Your task to perform on an android device: Open the Play Movies app and select the watchlist tab. Image 0: 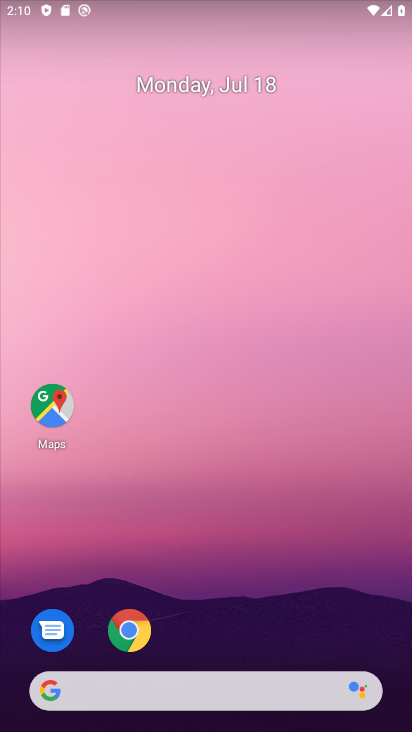
Step 0: press home button
Your task to perform on an android device: Open the Play Movies app and select the watchlist tab. Image 1: 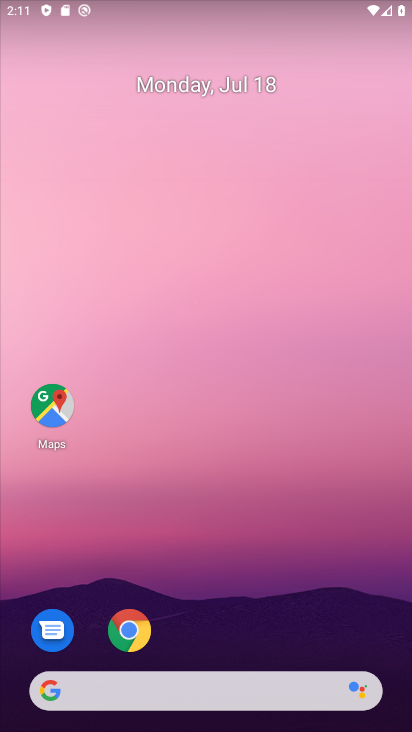
Step 1: drag from (242, 550) to (245, 83)
Your task to perform on an android device: Open the Play Movies app and select the watchlist tab. Image 2: 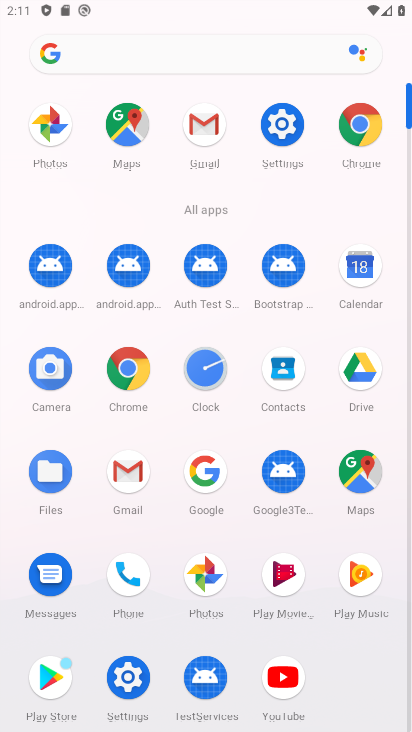
Step 2: click (284, 579)
Your task to perform on an android device: Open the Play Movies app and select the watchlist tab. Image 3: 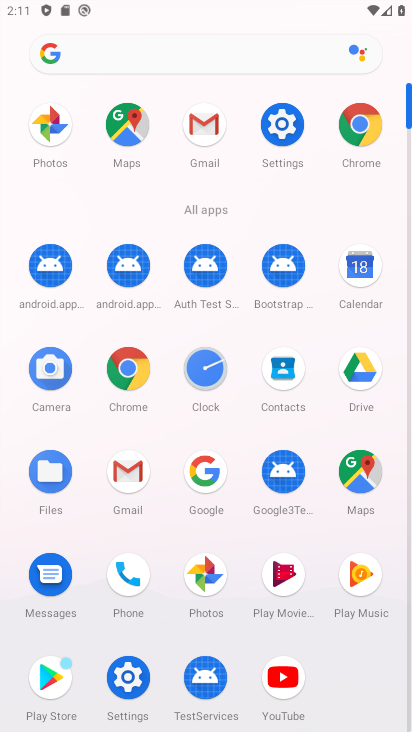
Step 3: click (283, 569)
Your task to perform on an android device: Open the Play Movies app and select the watchlist tab. Image 4: 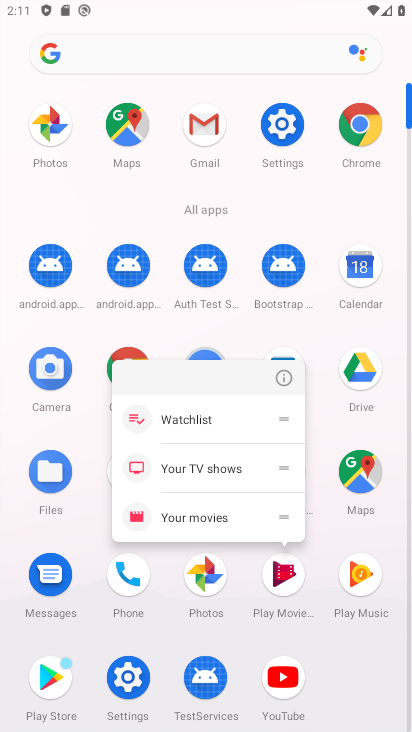
Step 4: click (283, 569)
Your task to perform on an android device: Open the Play Movies app and select the watchlist tab. Image 5: 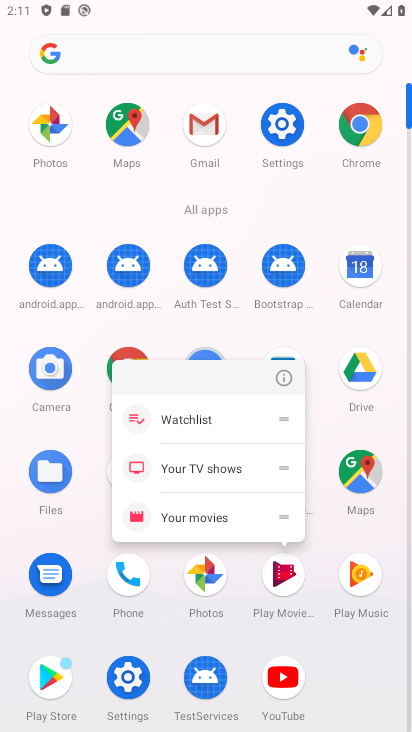
Step 5: click (284, 581)
Your task to perform on an android device: Open the Play Movies app and select the watchlist tab. Image 6: 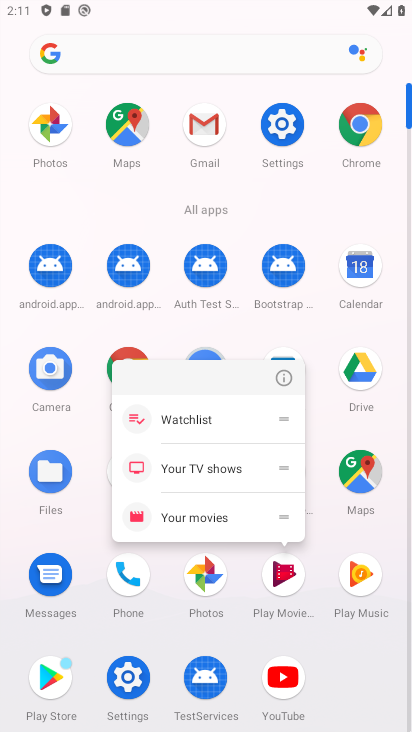
Step 6: click (282, 574)
Your task to perform on an android device: Open the Play Movies app and select the watchlist tab. Image 7: 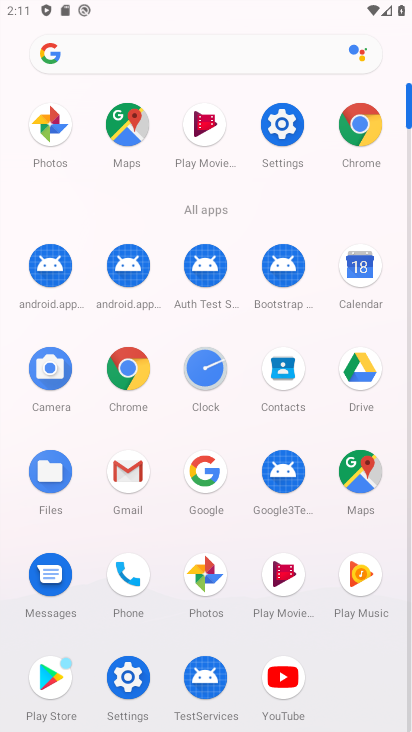
Step 7: task complete